Your task to perform on an android device: Add logitech g910 to the cart on amazon.com Image 0: 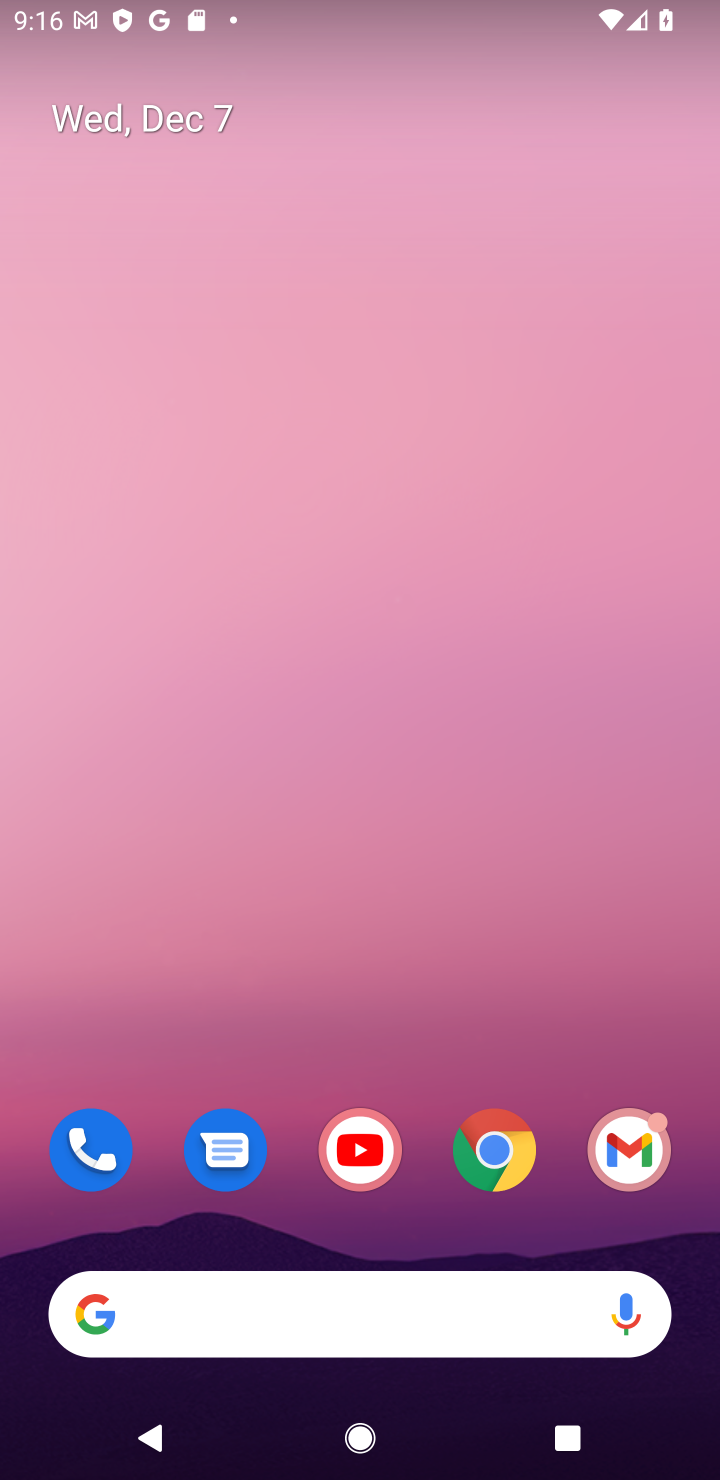
Step 0: click (494, 1158)
Your task to perform on an android device: Add logitech g910 to the cart on amazon.com Image 1: 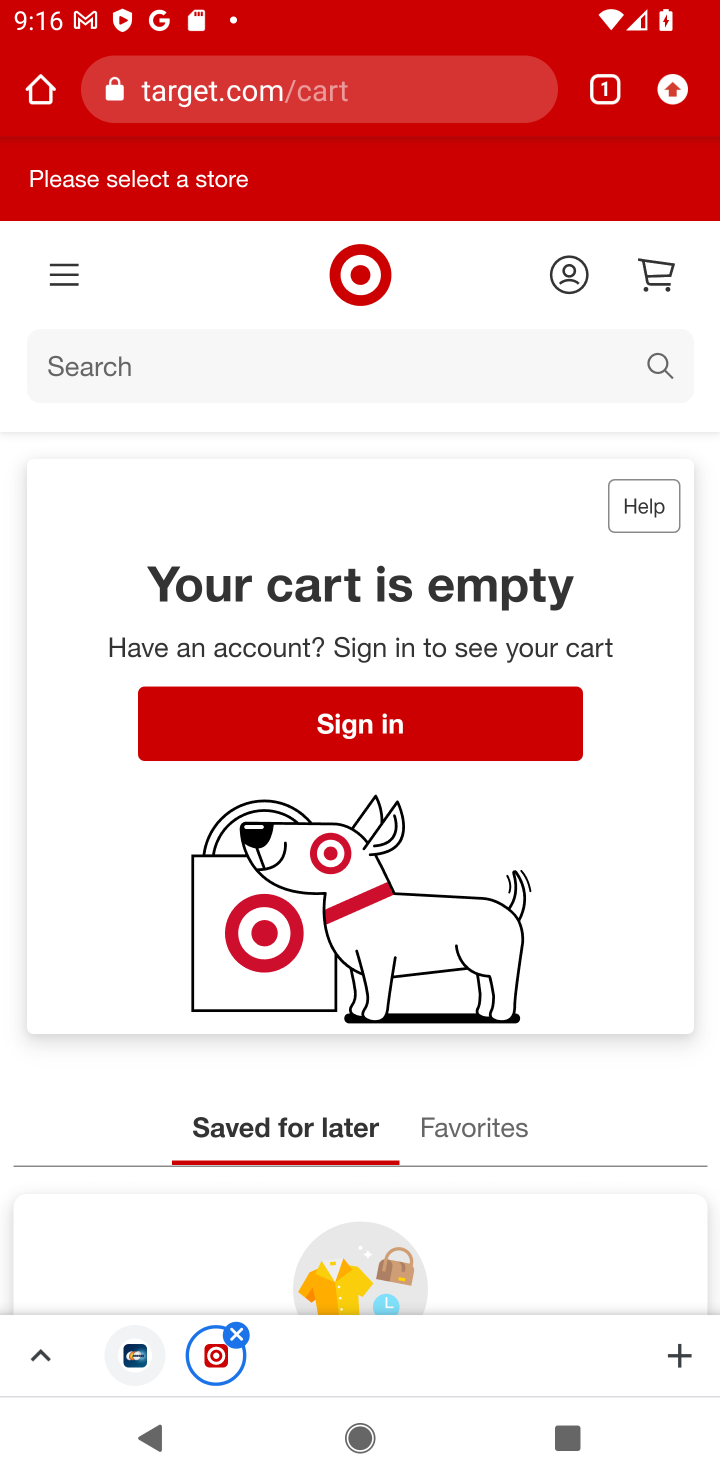
Step 1: click (420, 82)
Your task to perform on an android device: Add logitech g910 to the cart on amazon.com Image 2: 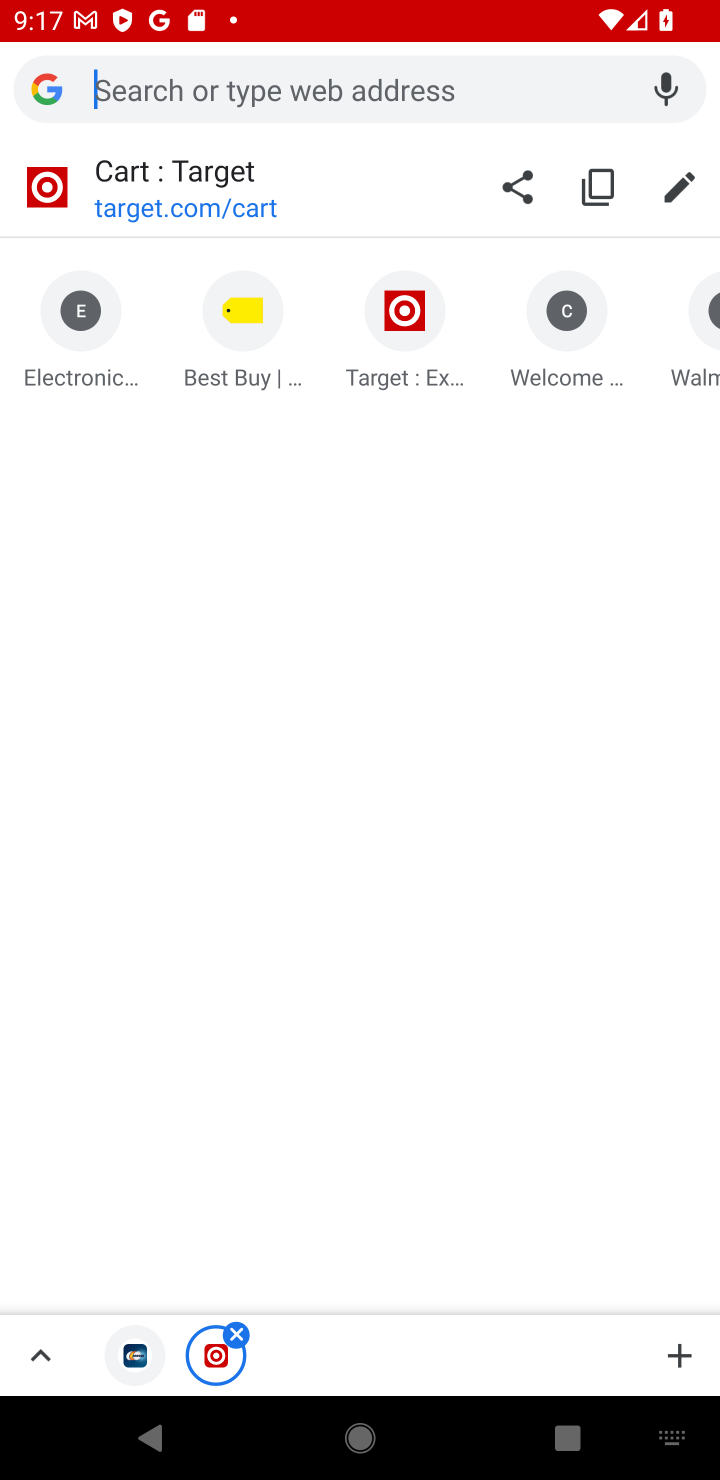
Step 2: type "amazon.com"
Your task to perform on an android device: Add logitech g910 to the cart on amazon.com Image 3: 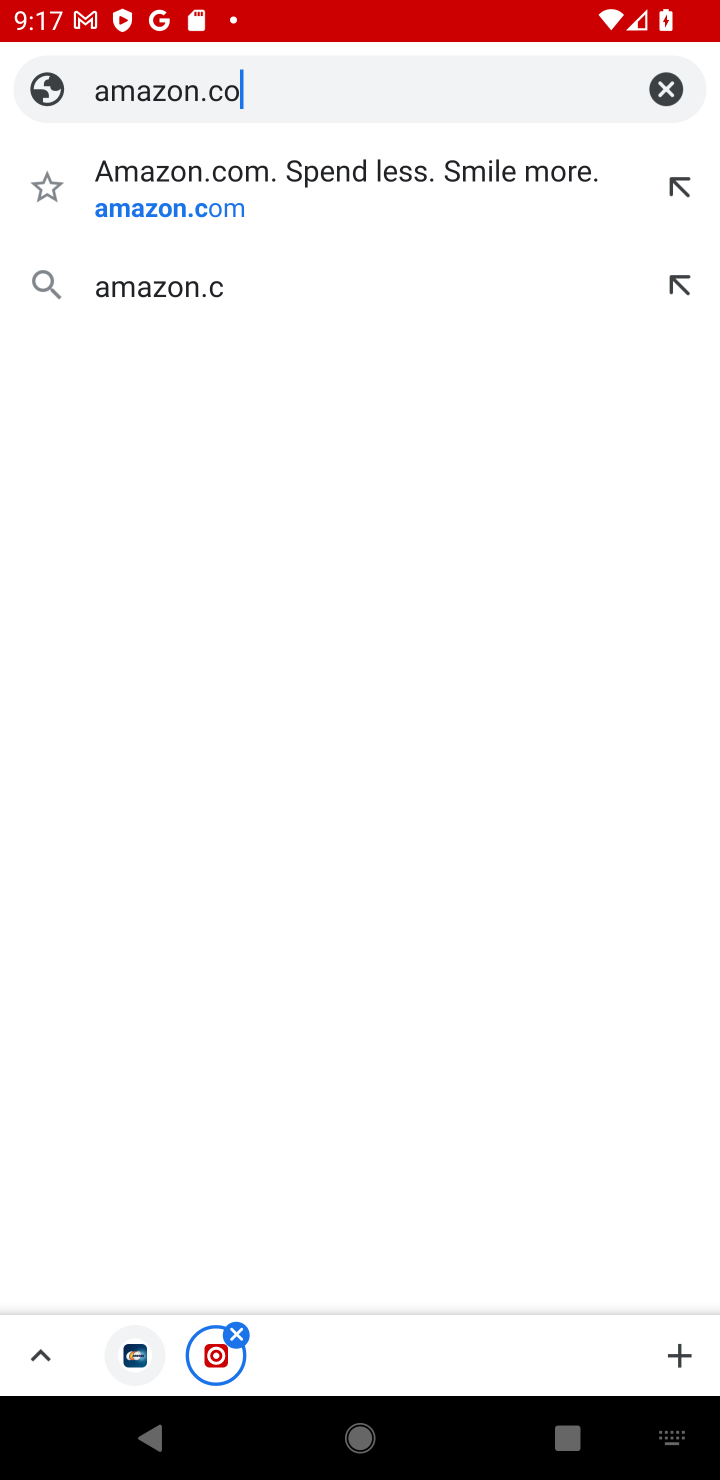
Step 3: press enter
Your task to perform on an android device: Add logitech g910 to the cart on amazon.com Image 4: 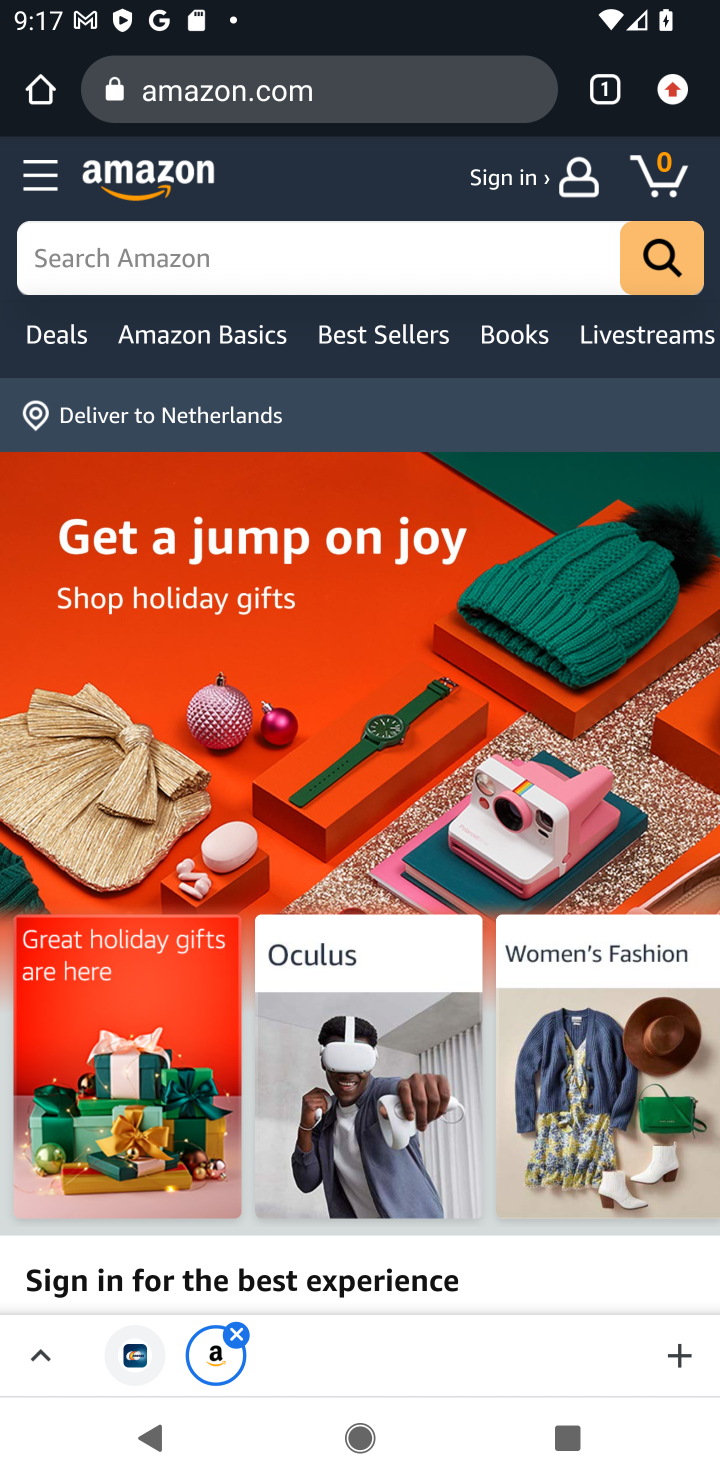
Step 4: click (382, 249)
Your task to perform on an android device: Add logitech g910 to the cart on amazon.com Image 5: 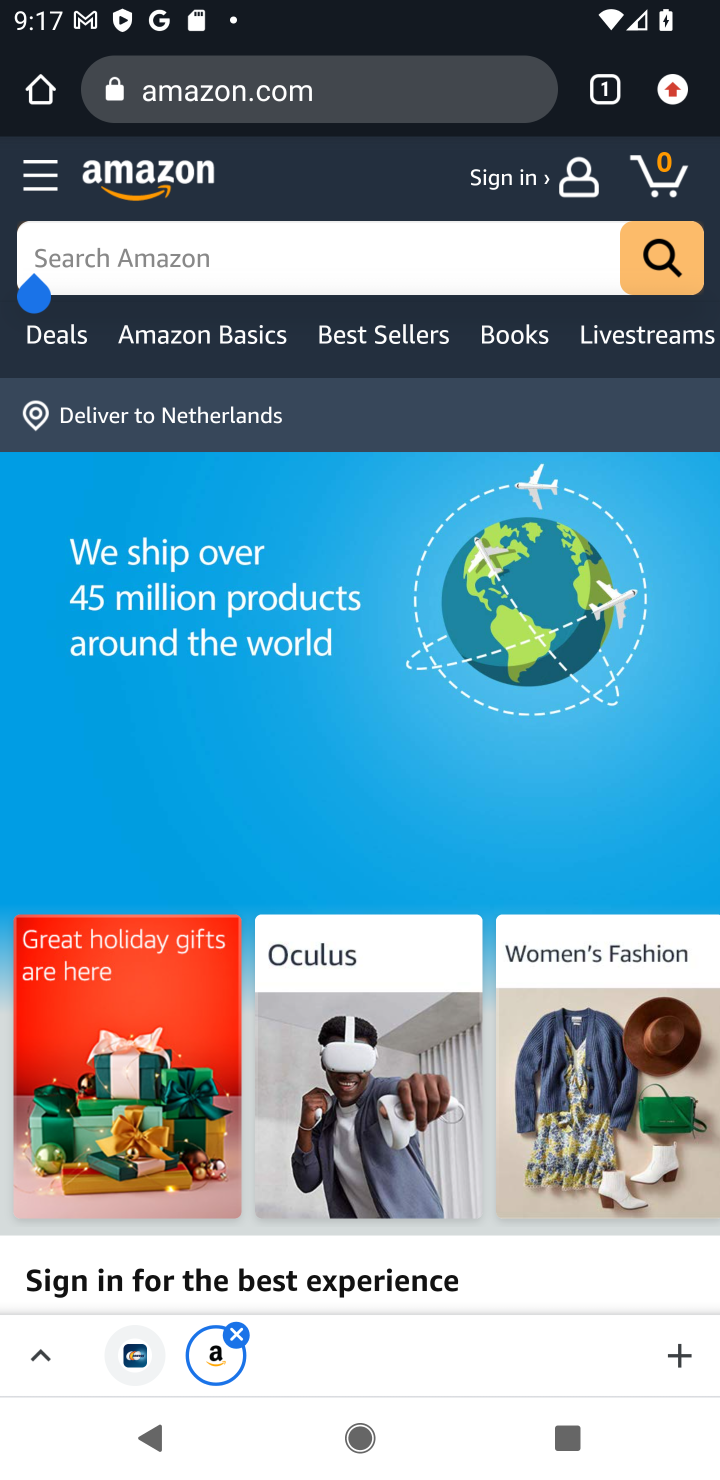
Step 5: press enter
Your task to perform on an android device: Add logitech g910 to the cart on amazon.com Image 6: 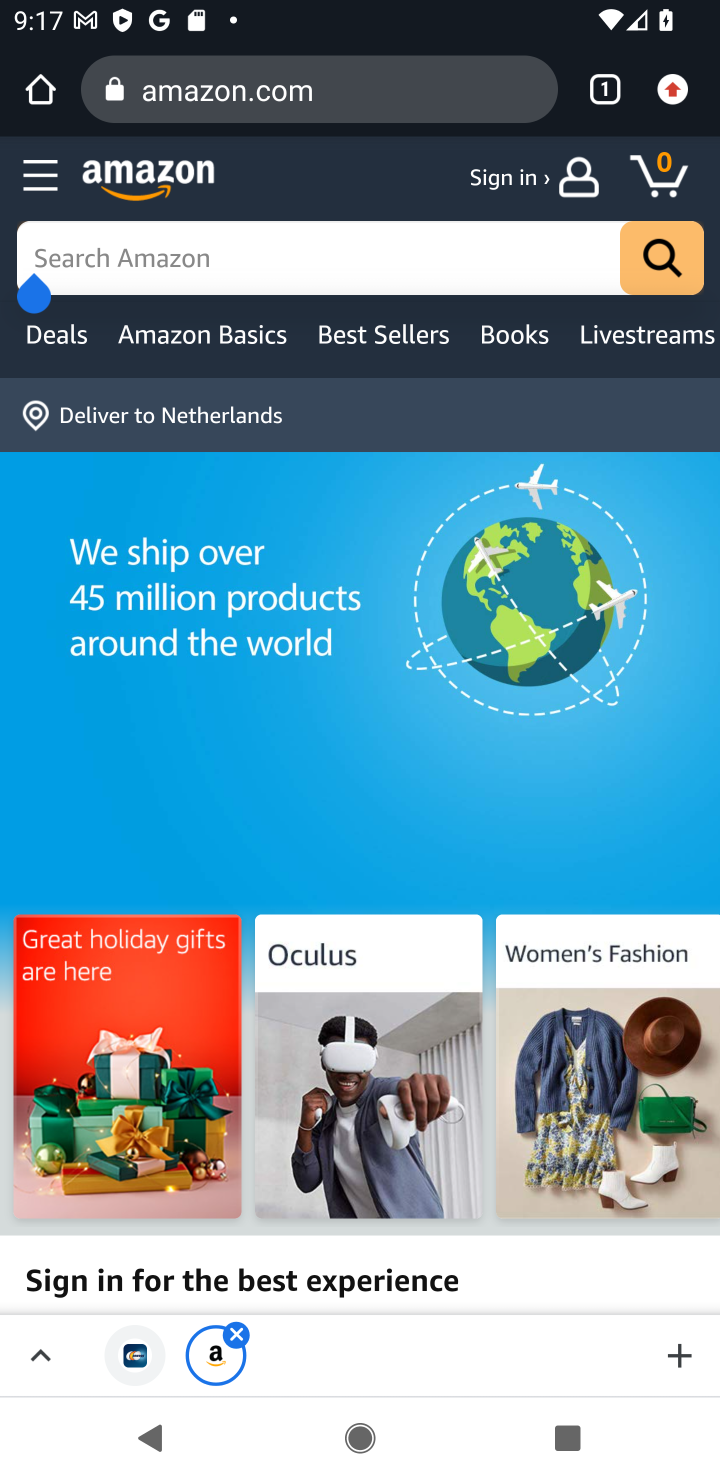
Step 6: type "logitech g910"
Your task to perform on an android device: Add logitech g910 to the cart on amazon.com Image 7: 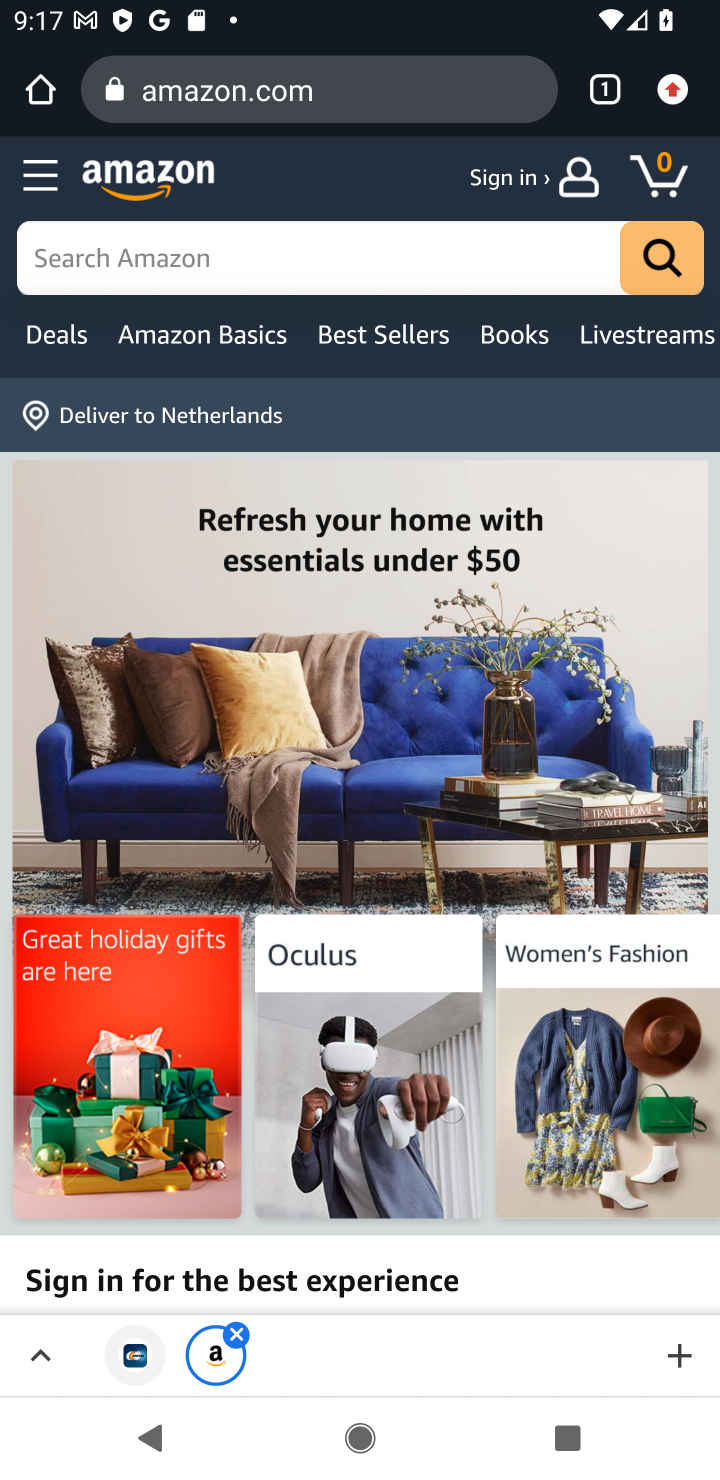
Step 7: click (439, 260)
Your task to perform on an android device: Add logitech g910 to the cart on amazon.com Image 8: 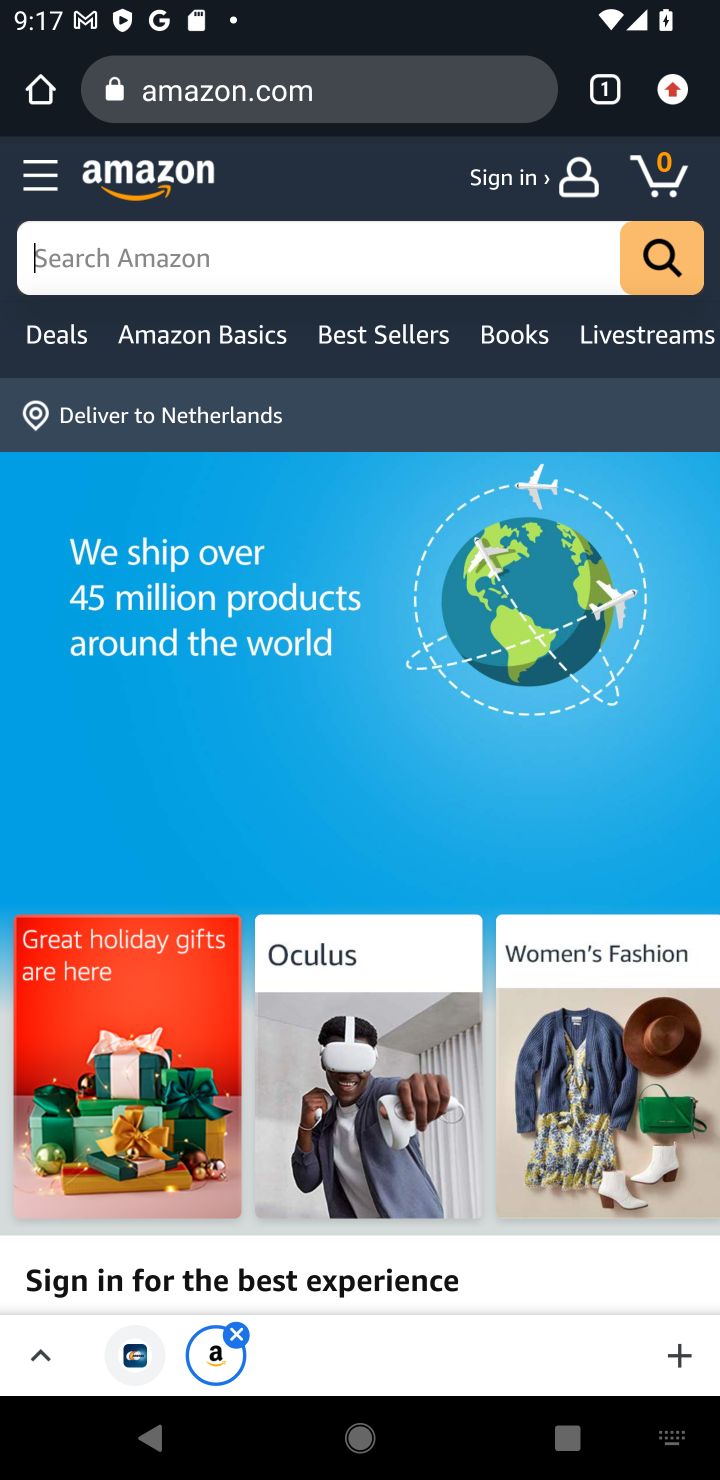
Step 8: type "logitech g910"
Your task to perform on an android device: Add logitech g910 to the cart on amazon.com Image 9: 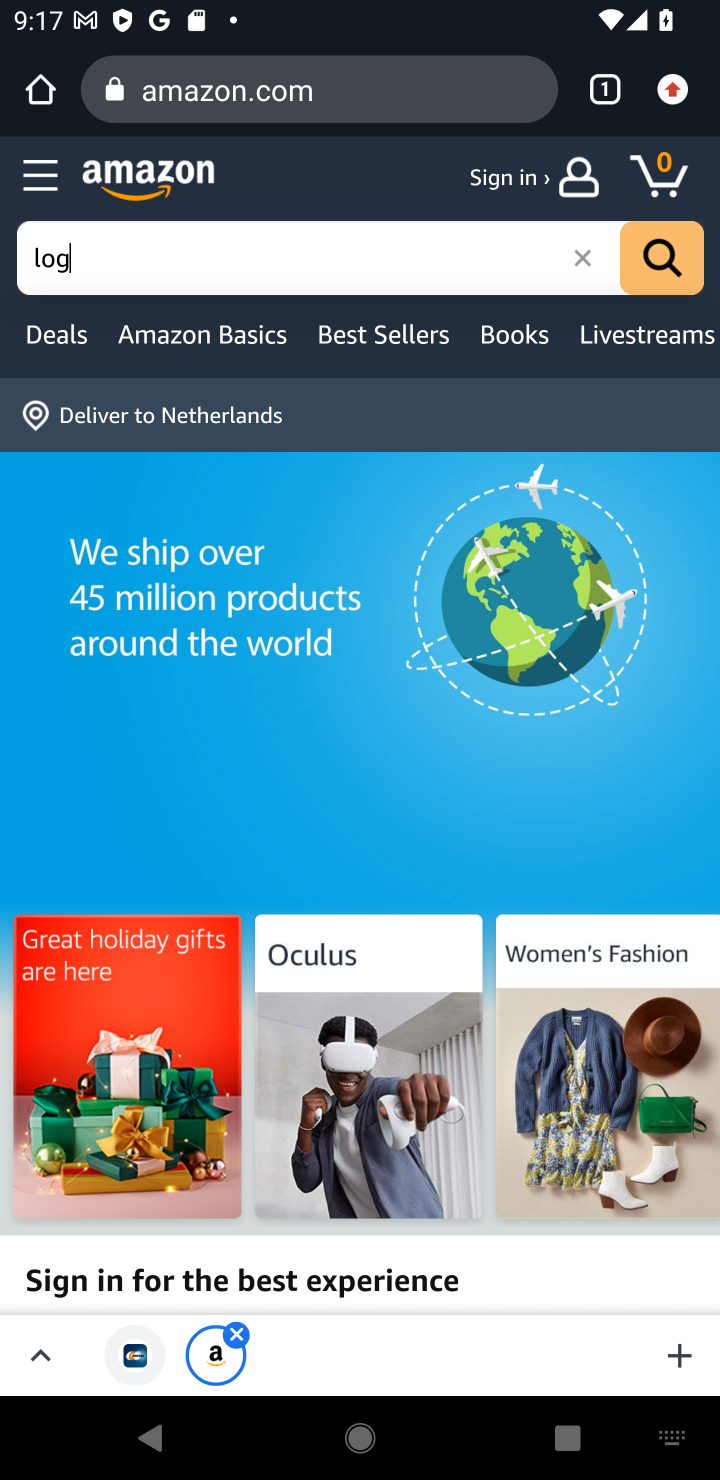
Step 9: press enter
Your task to perform on an android device: Add logitech g910 to the cart on amazon.com Image 10: 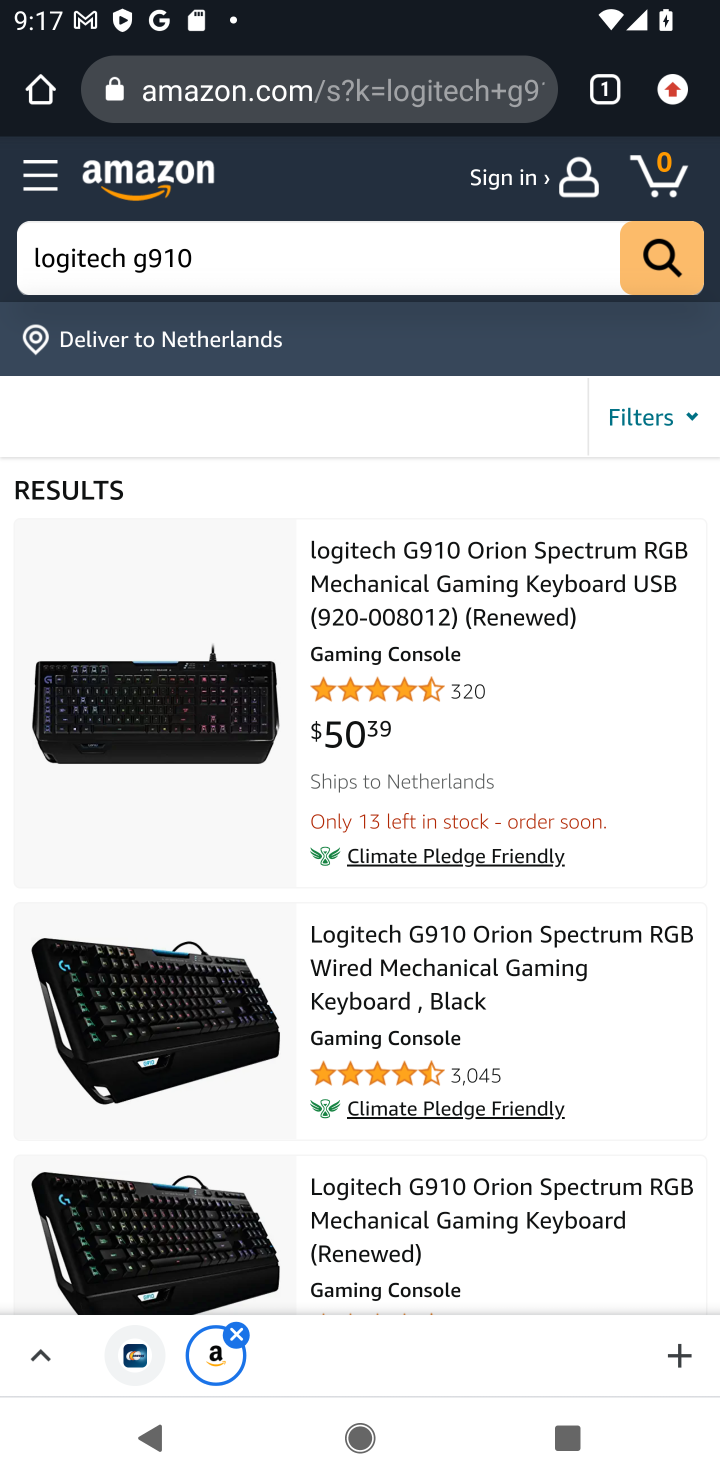
Step 10: click (111, 621)
Your task to perform on an android device: Add logitech g910 to the cart on amazon.com Image 11: 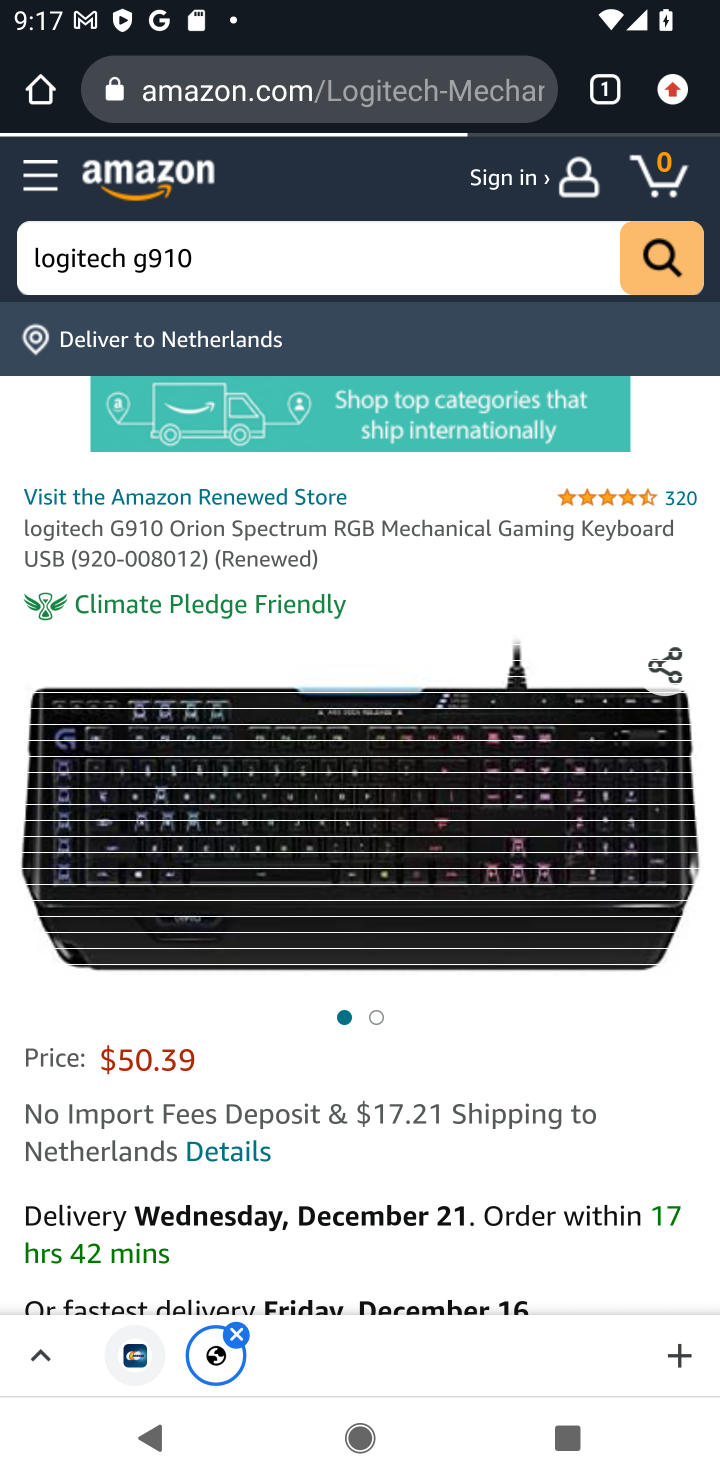
Step 11: drag from (457, 762) to (495, 409)
Your task to perform on an android device: Add logitech g910 to the cart on amazon.com Image 12: 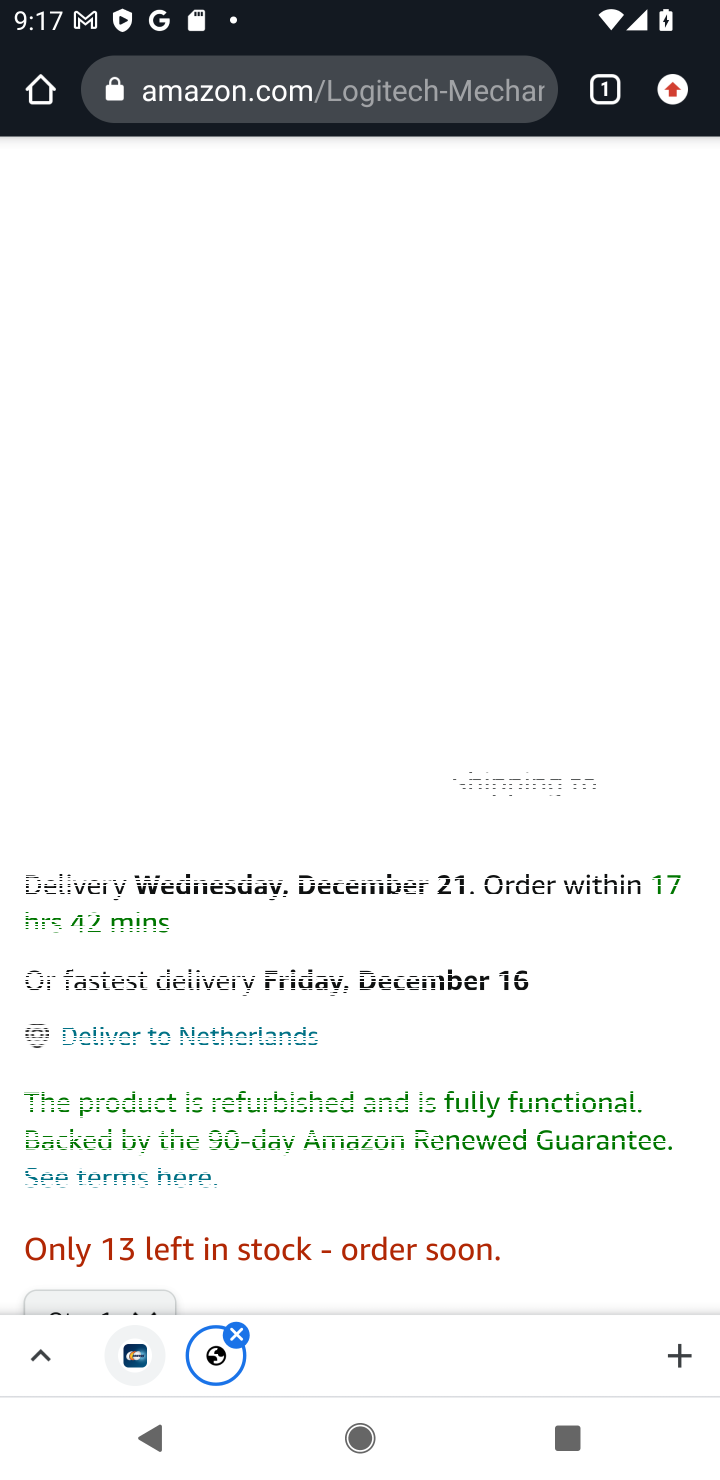
Step 12: drag from (500, 892) to (526, 460)
Your task to perform on an android device: Add logitech g910 to the cart on amazon.com Image 13: 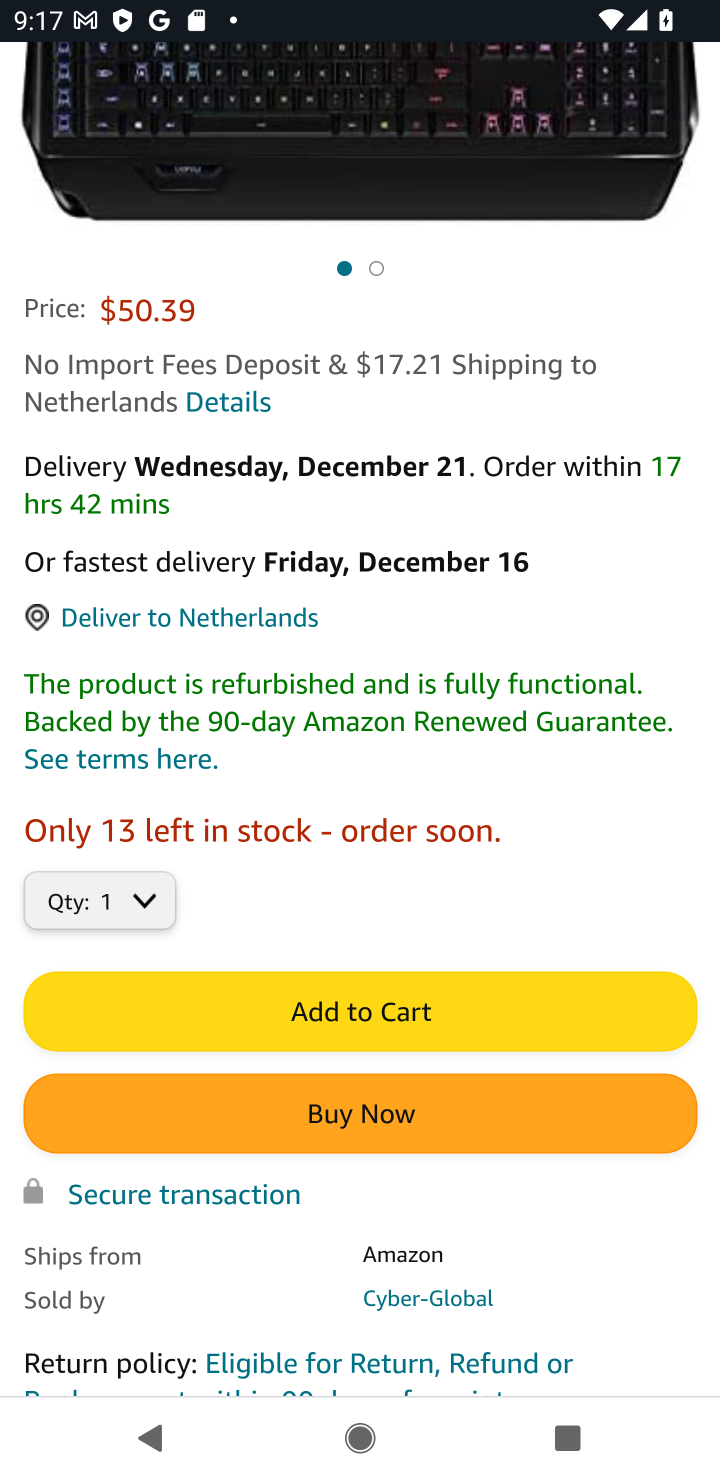
Step 13: click (429, 1014)
Your task to perform on an android device: Add logitech g910 to the cart on amazon.com Image 14: 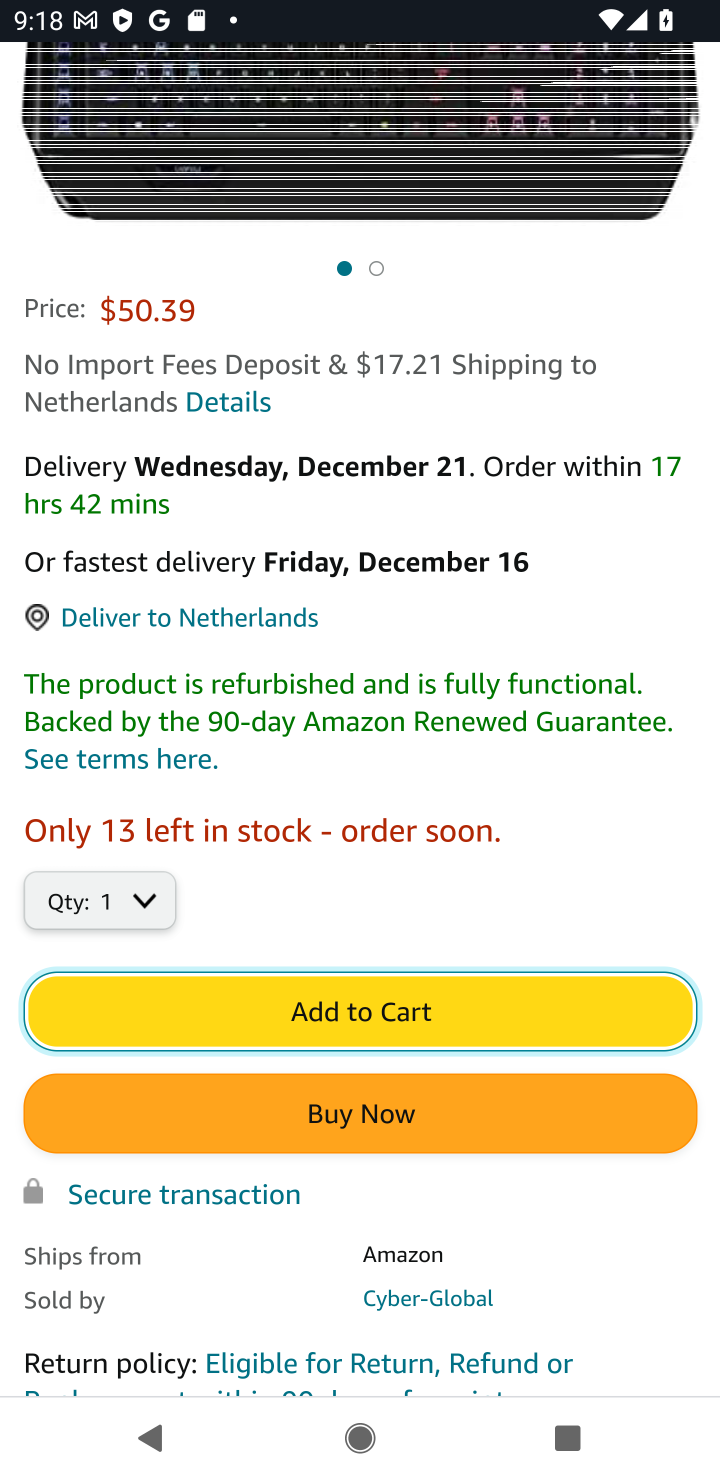
Step 14: click (359, 1007)
Your task to perform on an android device: Add logitech g910 to the cart on amazon.com Image 15: 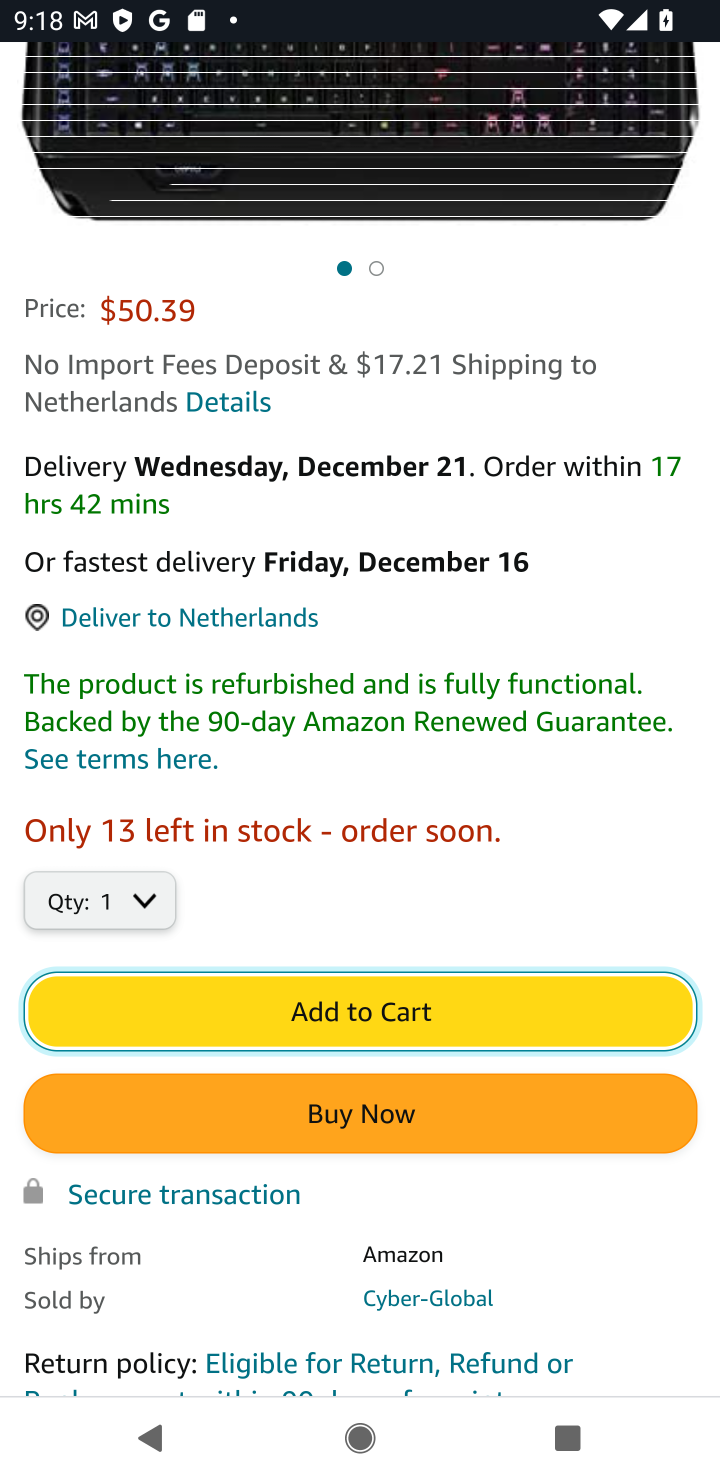
Step 15: click (332, 999)
Your task to perform on an android device: Add logitech g910 to the cart on amazon.com Image 16: 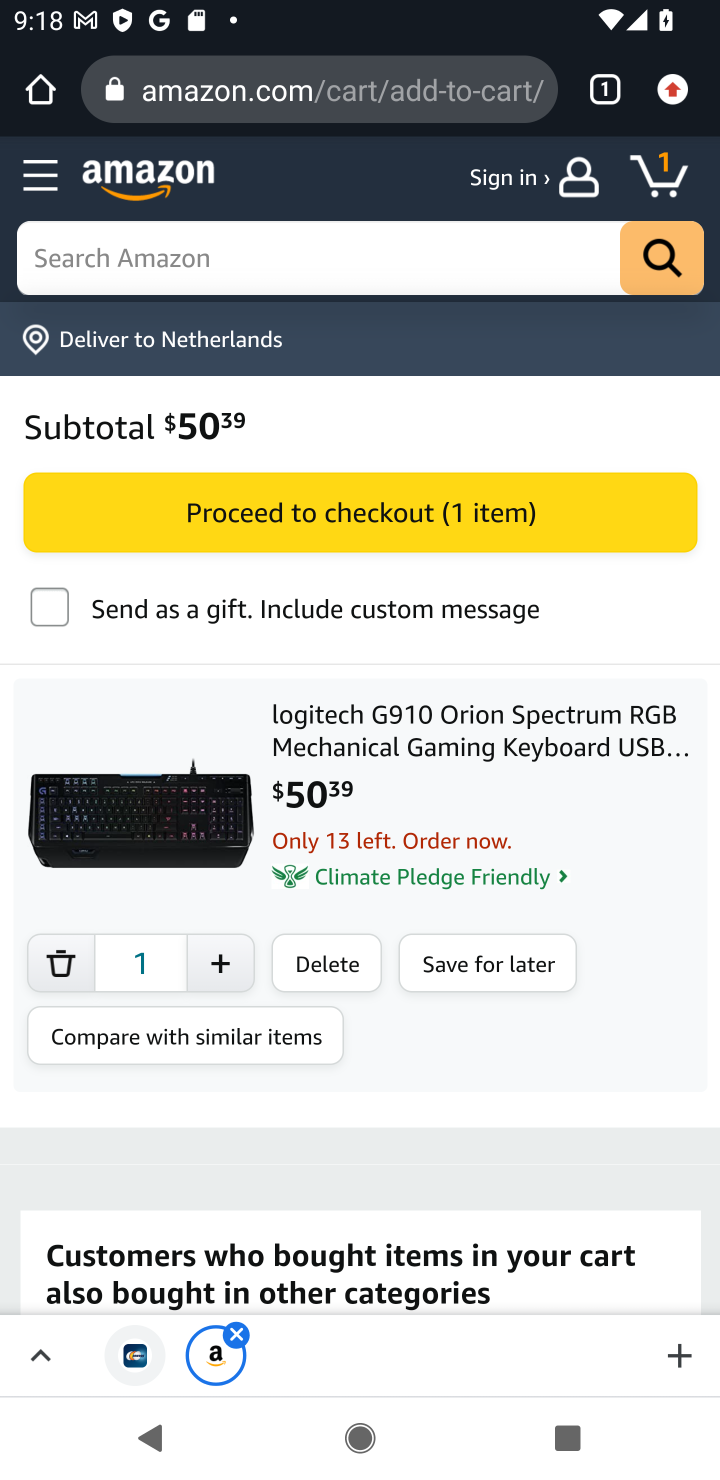
Step 16: task complete